Your task to perform on an android device: change your default location settings in chrome Image 0: 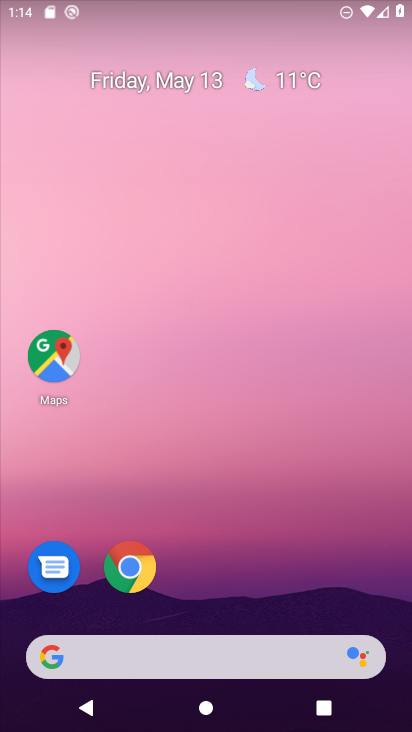
Step 0: drag from (205, 618) to (188, 128)
Your task to perform on an android device: change your default location settings in chrome Image 1: 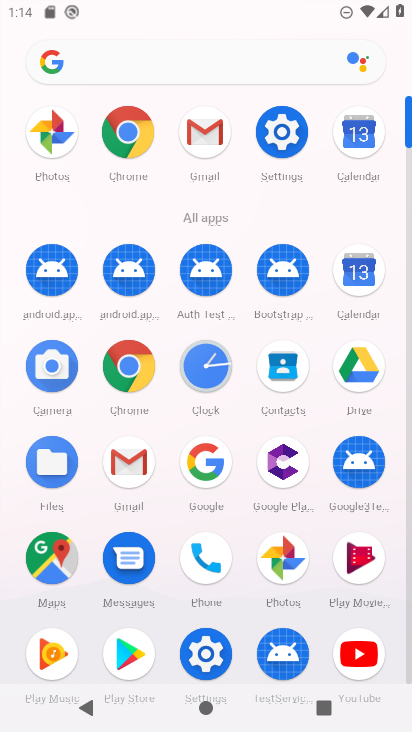
Step 1: click (125, 361)
Your task to perform on an android device: change your default location settings in chrome Image 2: 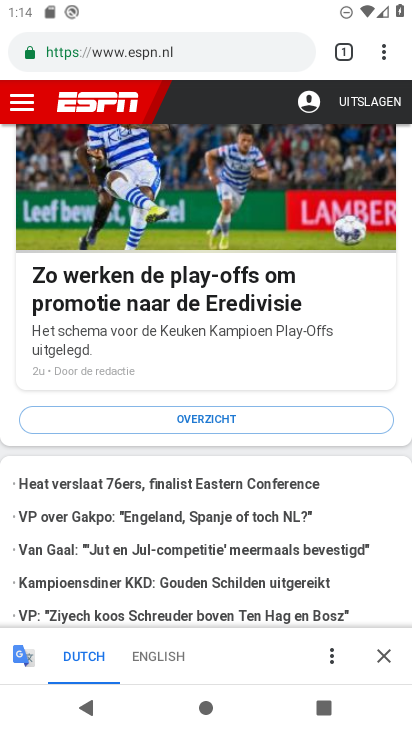
Step 2: click (389, 52)
Your task to perform on an android device: change your default location settings in chrome Image 3: 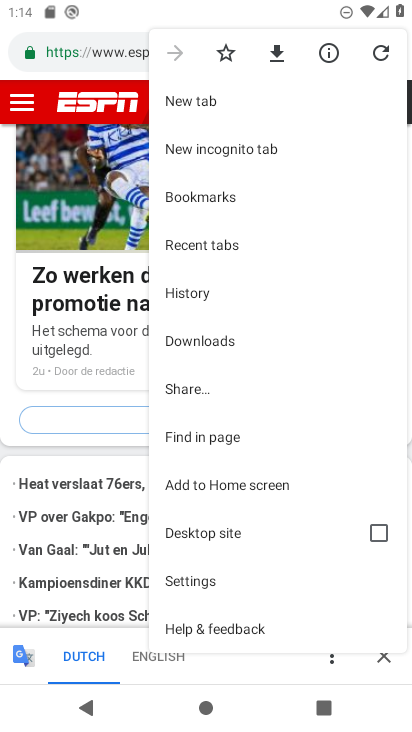
Step 3: click (227, 578)
Your task to perform on an android device: change your default location settings in chrome Image 4: 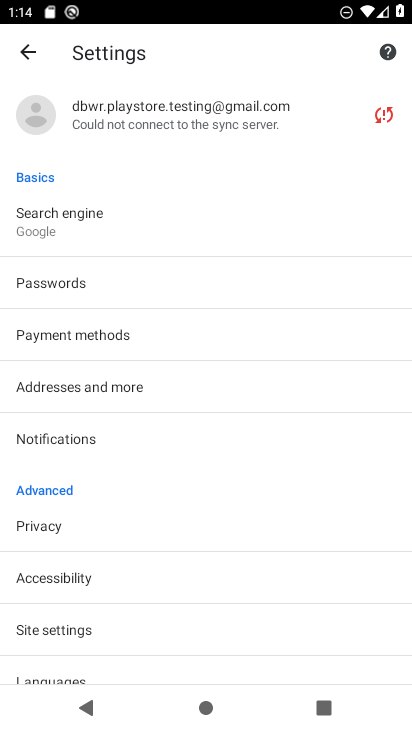
Step 4: drag from (139, 634) to (141, 221)
Your task to perform on an android device: change your default location settings in chrome Image 5: 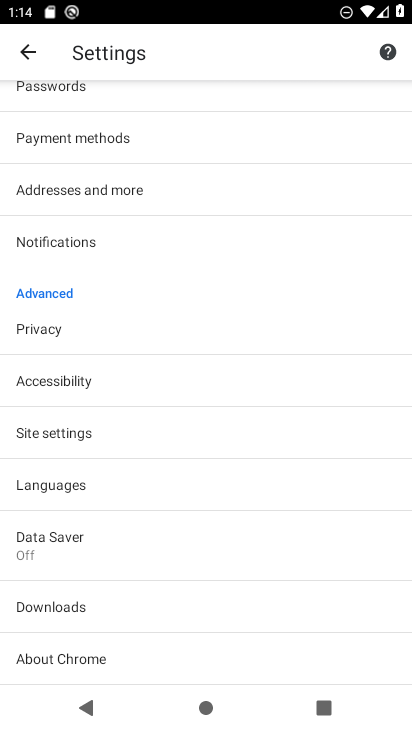
Step 5: click (106, 429)
Your task to perform on an android device: change your default location settings in chrome Image 6: 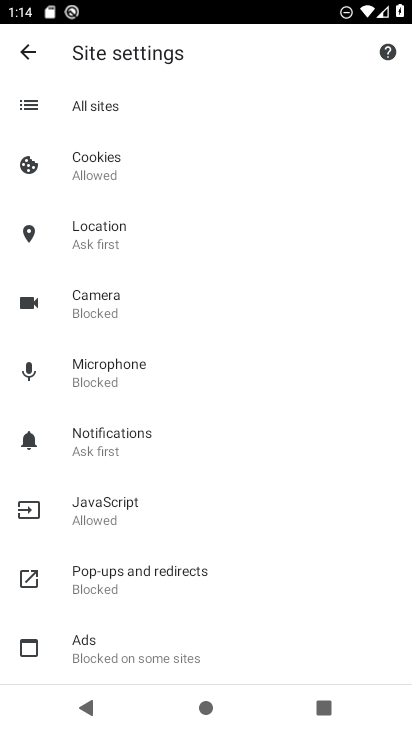
Step 6: click (129, 233)
Your task to perform on an android device: change your default location settings in chrome Image 7: 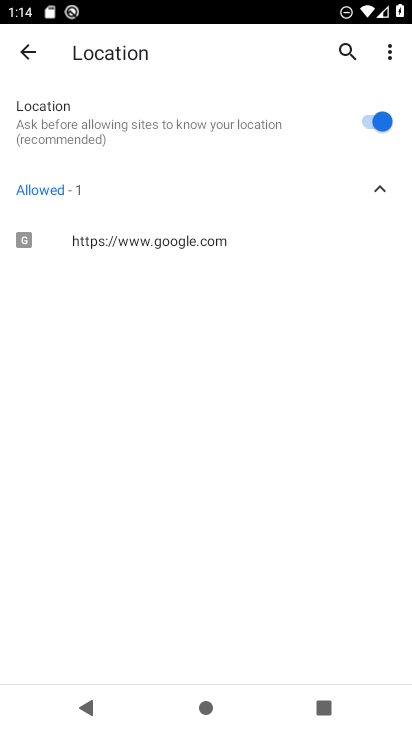
Step 7: click (381, 119)
Your task to perform on an android device: change your default location settings in chrome Image 8: 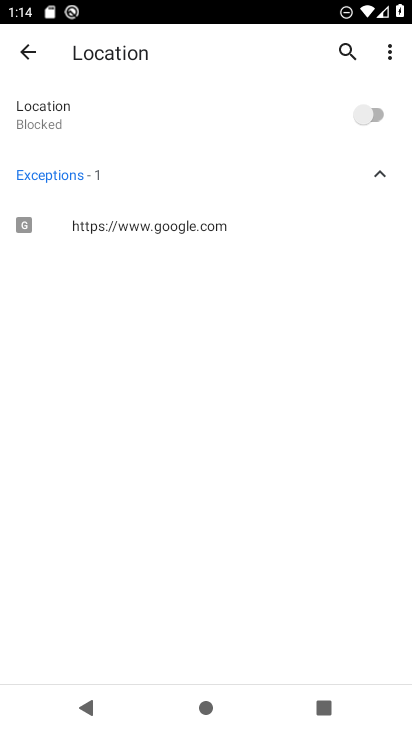
Step 8: task complete